Your task to perform on an android device: Check the news Image 0: 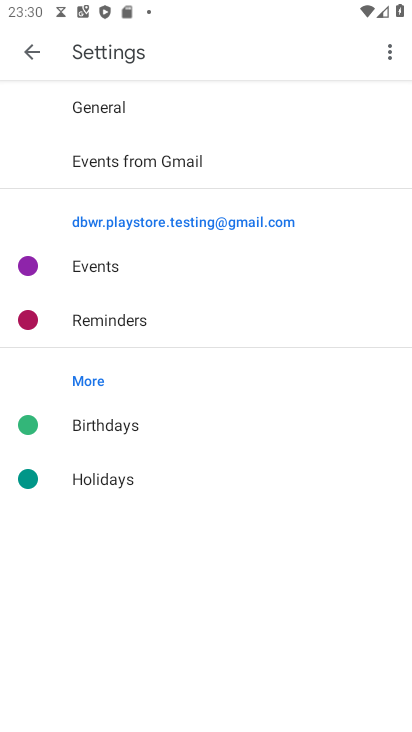
Step 0: press back button
Your task to perform on an android device: Check the news Image 1: 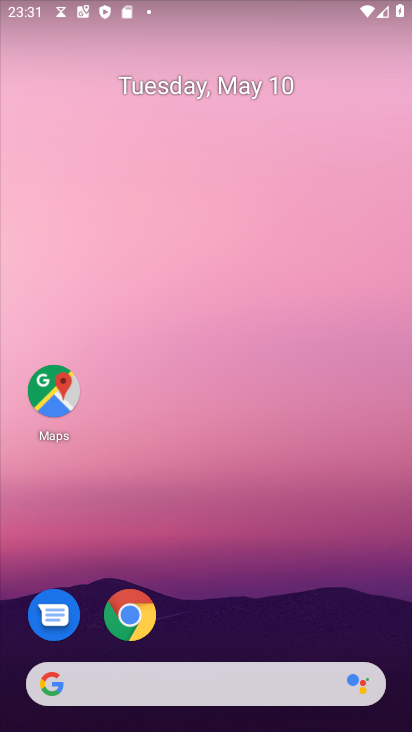
Step 1: drag from (266, 603) to (253, 19)
Your task to perform on an android device: Check the news Image 2: 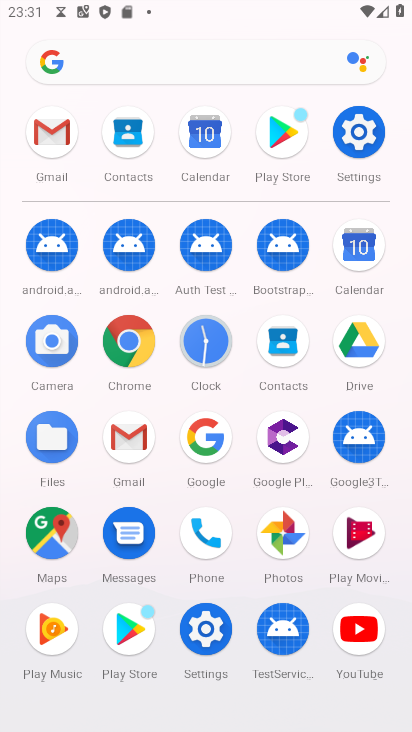
Step 2: click (202, 435)
Your task to perform on an android device: Check the news Image 3: 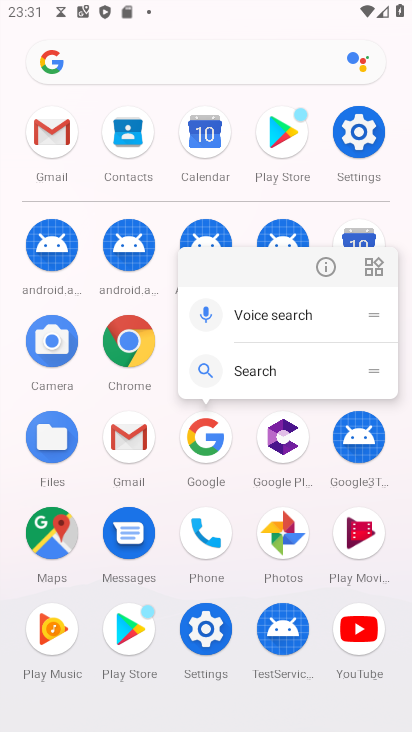
Step 3: click (202, 436)
Your task to perform on an android device: Check the news Image 4: 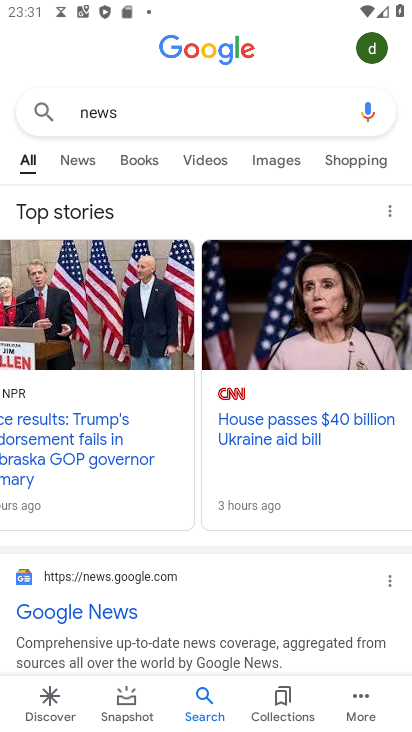
Step 4: task complete